Your task to perform on an android device: toggle sleep mode Image 0: 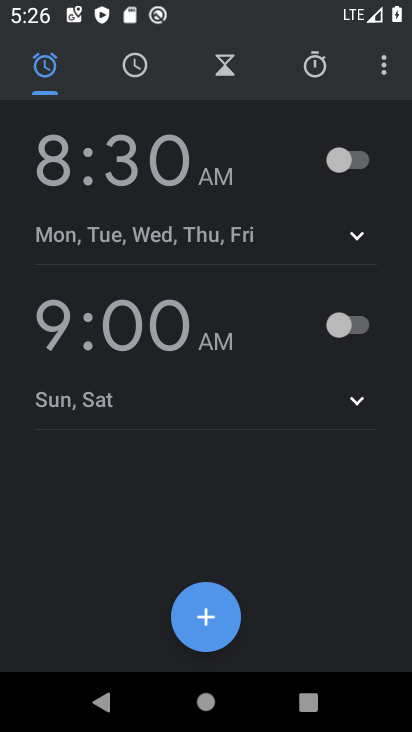
Step 0: press home button
Your task to perform on an android device: toggle sleep mode Image 1: 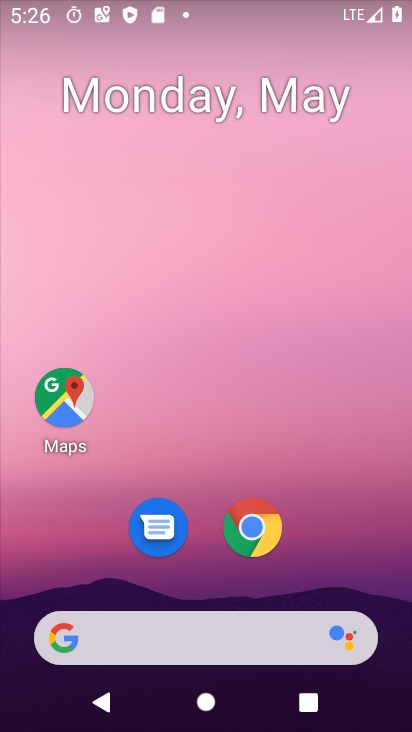
Step 1: drag from (401, 692) to (378, 213)
Your task to perform on an android device: toggle sleep mode Image 2: 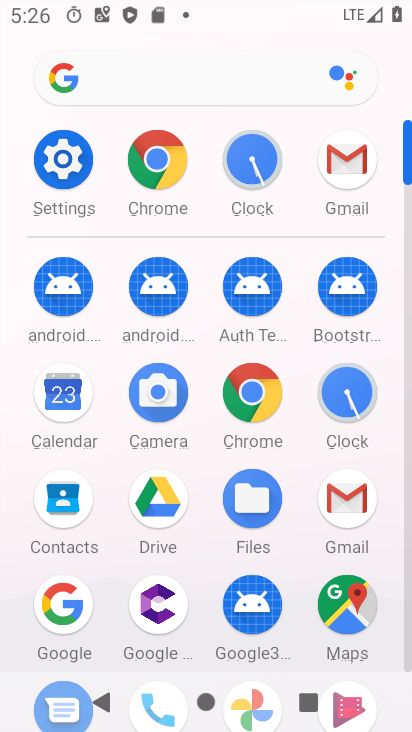
Step 2: click (73, 172)
Your task to perform on an android device: toggle sleep mode Image 3: 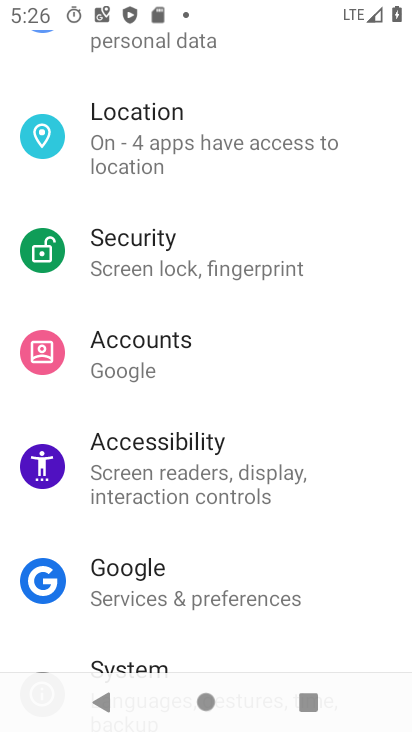
Step 3: drag from (338, 100) to (388, 589)
Your task to perform on an android device: toggle sleep mode Image 4: 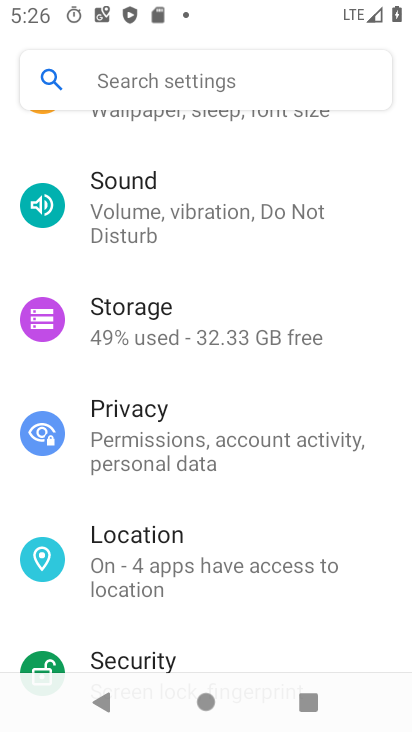
Step 4: drag from (316, 165) to (396, 565)
Your task to perform on an android device: toggle sleep mode Image 5: 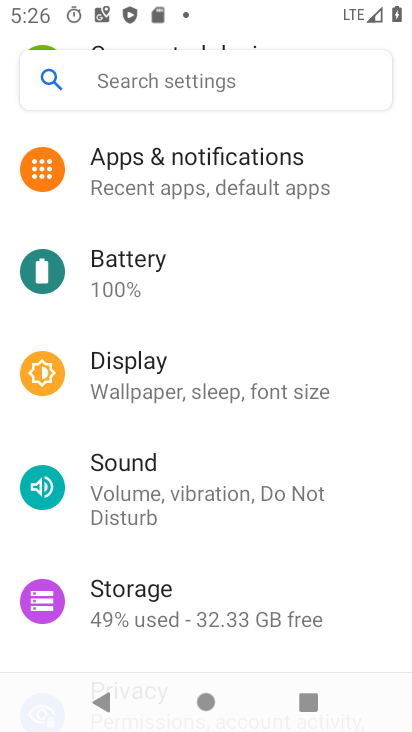
Step 5: click (174, 369)
Your task to perform on an android device: toggle sleep mode Image 6: 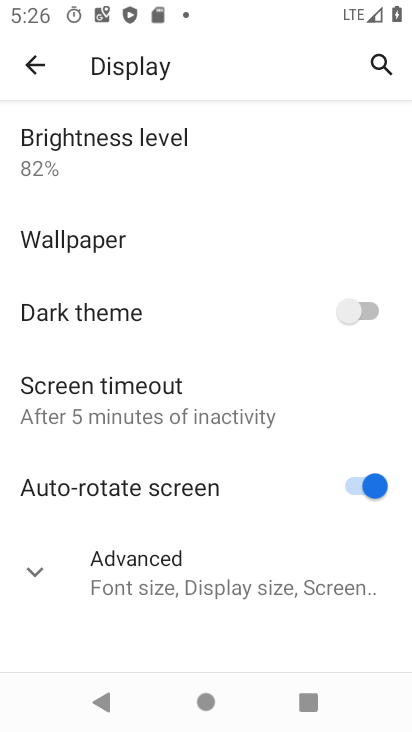
Step 6: drag from (223, 218) to (254, 537)
Your task to perform on an android device: toggle sleep mode Image 7: 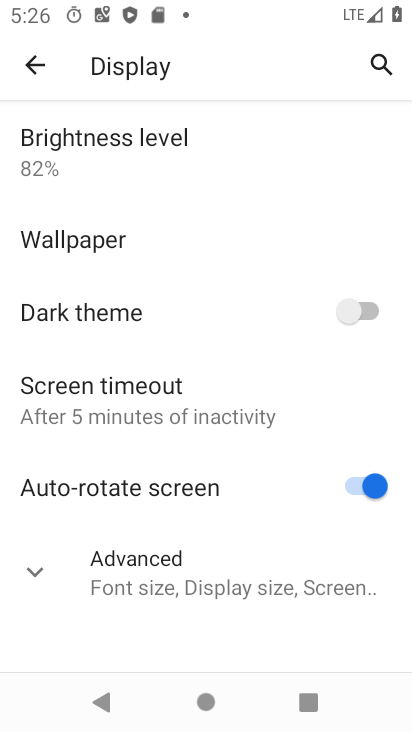
Step 7: drag from (251, 583) to (239, 290)
Your task to perform on an android device: toggle sleep mode Image 8: 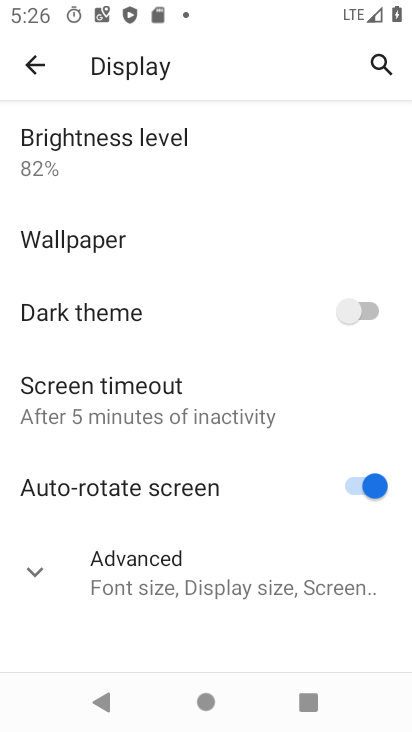
Step 8: click (73, 392)
Your task to perform on an android device: toggle sleep mode Image 9: 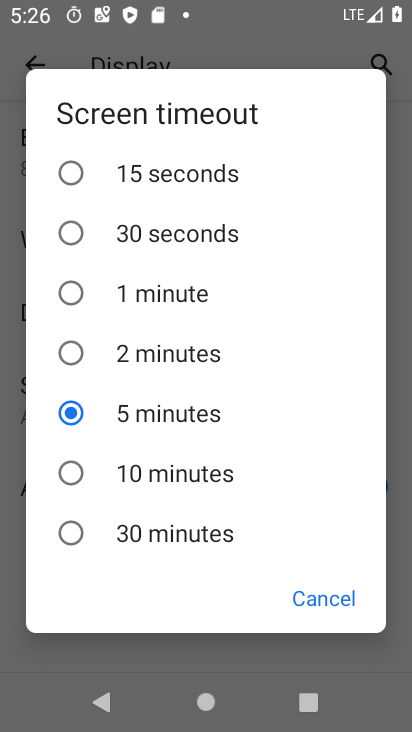
Step 9: click (71, 477)
Your task to perform on an android device: toggle sleep mode Image 10: 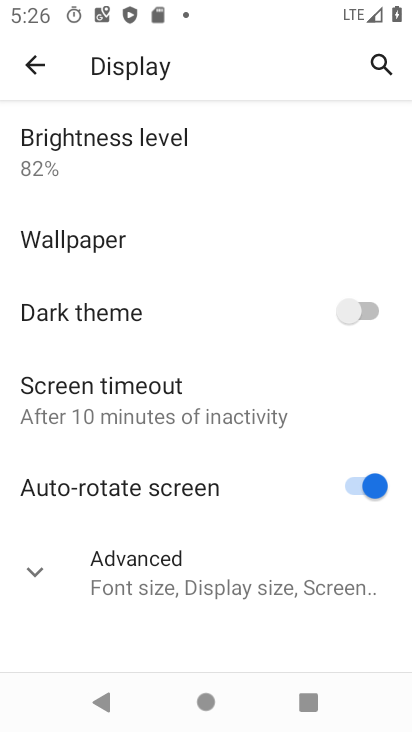
Step 10: task complete